Your task to perform on an android device: Open Wikipedia Image 0: 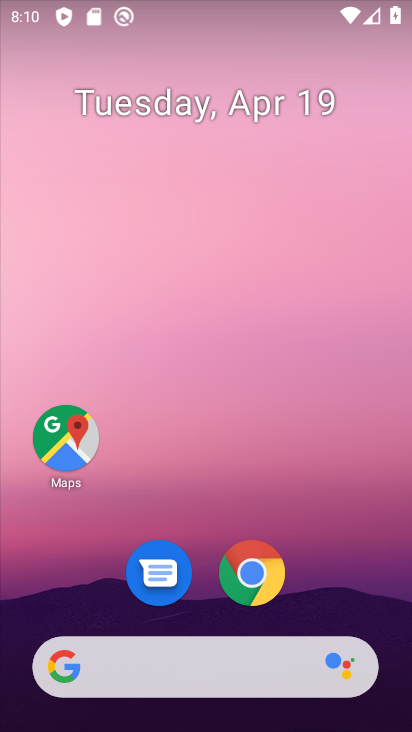
Step 0: drag from (322, 522) to (315, 144)
Your task to perform on an android device: Open Wikipedia Image 1: 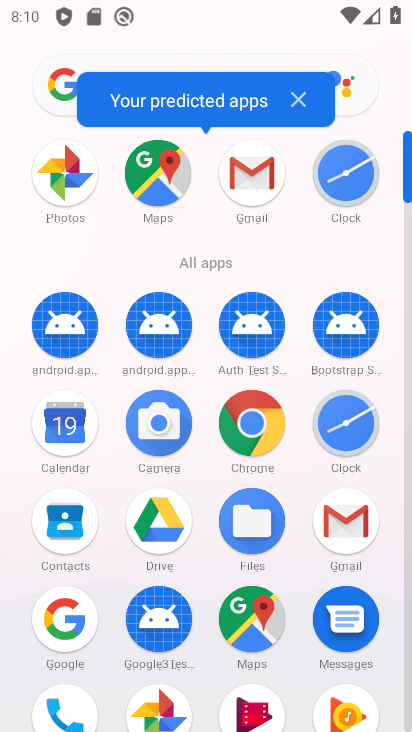
Step 1: click (252, 420)
Your task to perform on an android device: Open Wikipedia Image 2: 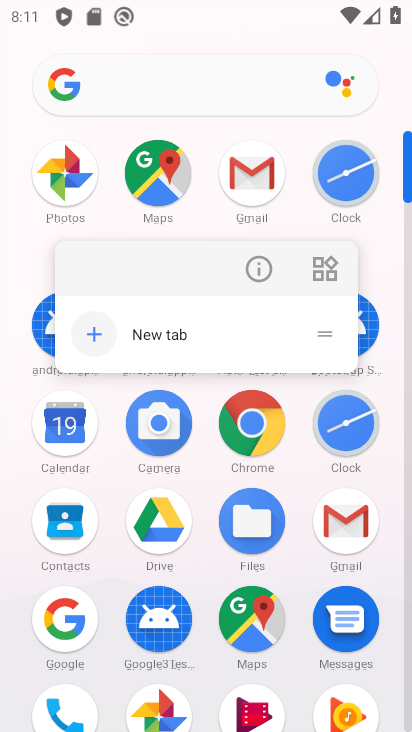
Step 2: click (268, 440)
Your task to perform on an android device: Open Wikipedia Image 3: 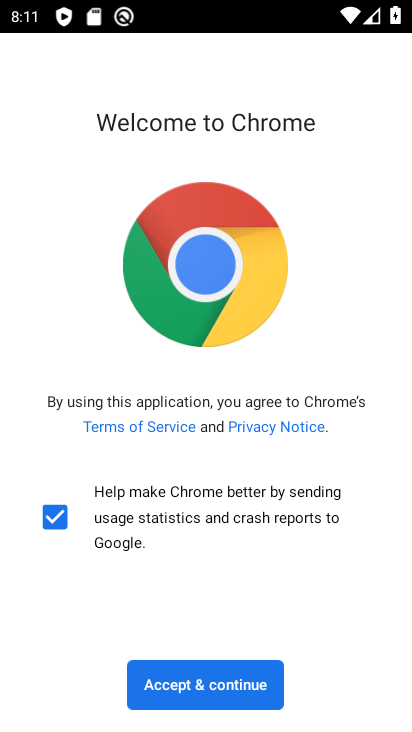
Step 3: click (248, 694)
Your task to perform on an android device: Open Wikipedia Image 4: 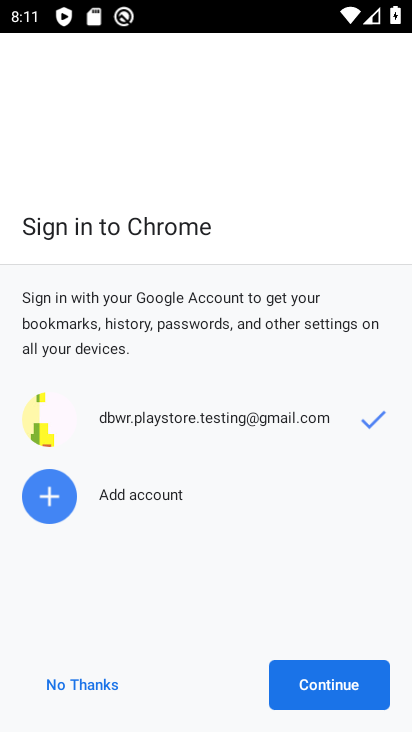
Step 4: click (300, 678)
Your task to perform on an android device: Open Wikipedia Image 5: 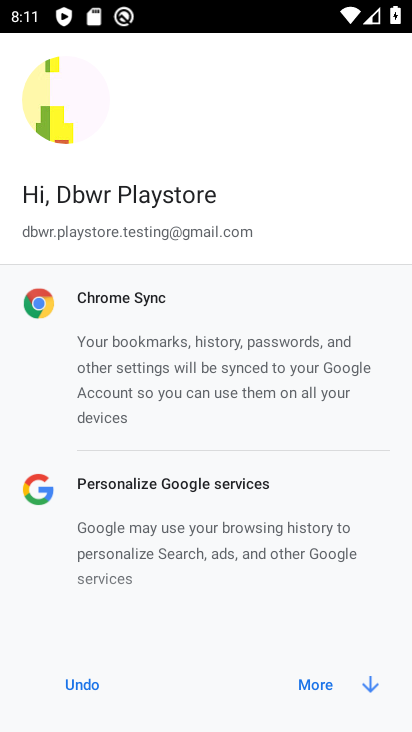
Step 5: click (300, 678)
Your task to perform on an android device: Open Wikipedia Image 6: 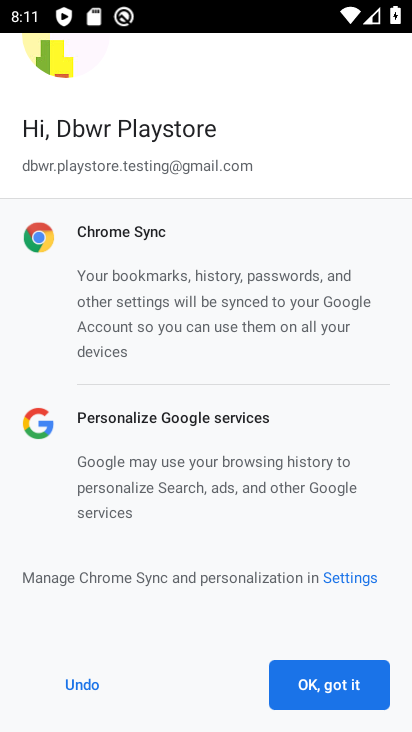
Step 6: click (300, 678)
Your task to perform on an android device: Open Wikipedia Image 7: 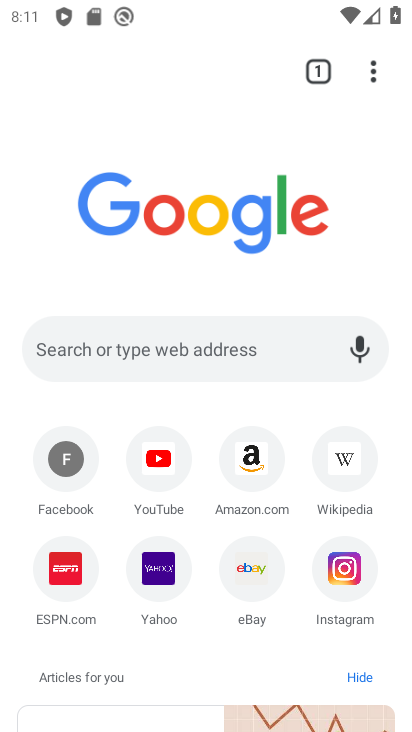
Step 7: click (351, 464)
Your task to perform on an android device: Open Wikipedia Image 8: 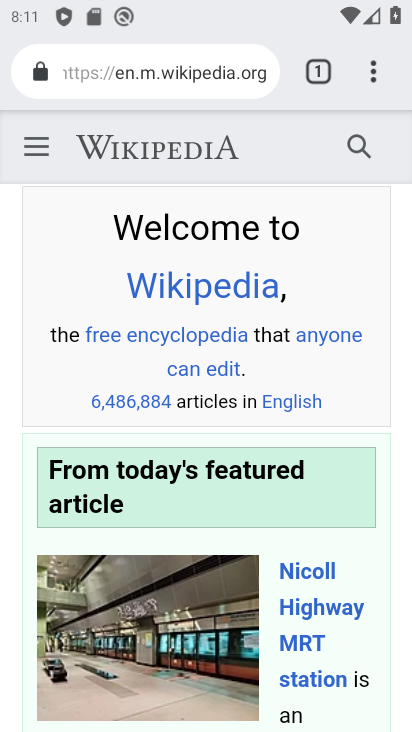
Step 8: task complete